Your task to perform on an android device: toggle improve location accuracy Image 0: 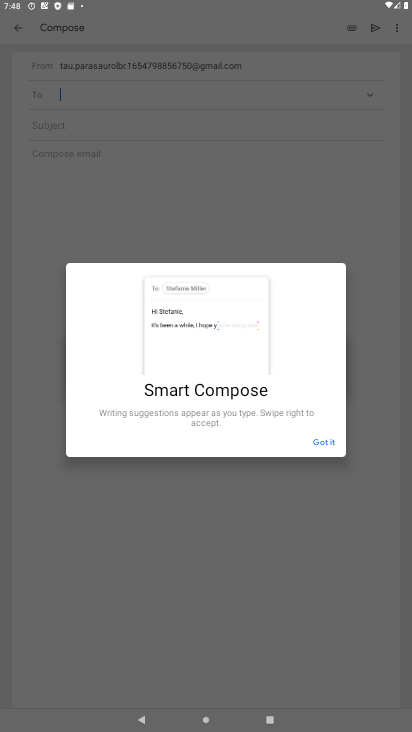
Step 0: press home button
Your task to perform on an android device: toggle improve location accuracy Image 1: 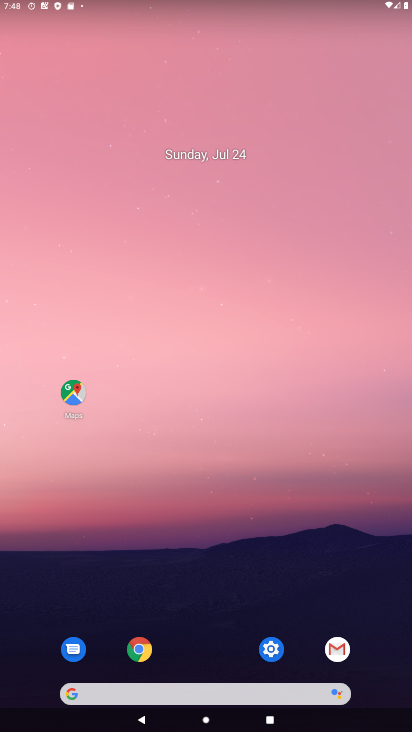
Step 1: click (263, 651)
Your task to perform on an android device: toggle improve location accuracy Image 2: 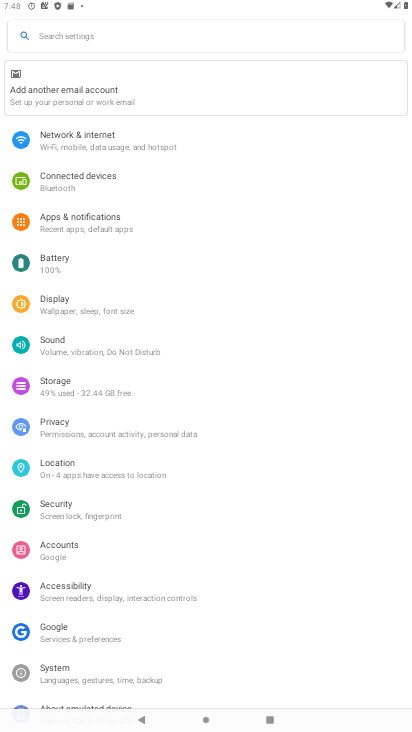
Step 2: click (81, 471)
Your task to perform on an android device: toggle improve location accuracy Image 3: 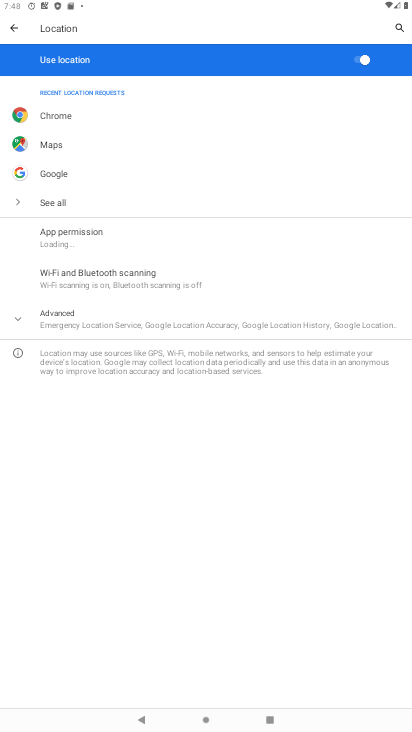
Step 3: click (26, 320)
Your task to perform on an android device: toggle improve location accuracy Image 4: 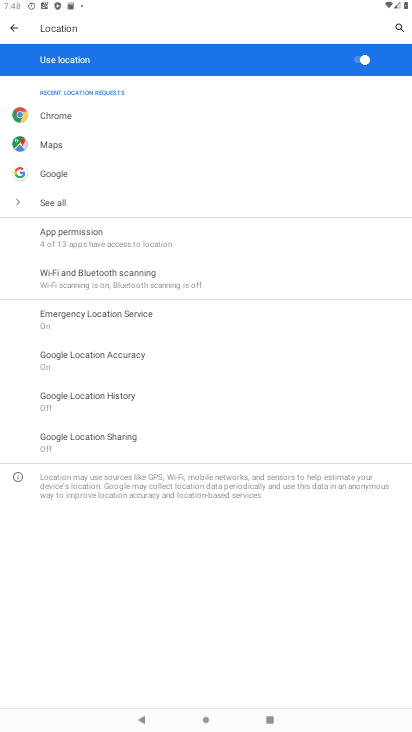
Step 4: click (133, 367)
Your task to perform on an android device: toggle improve location accuracy Image 5: 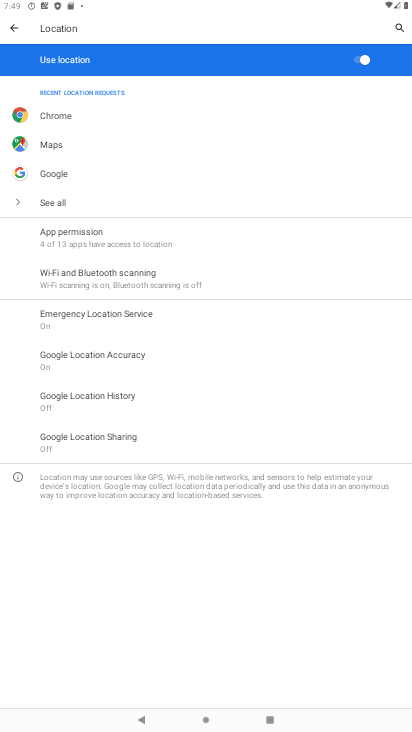
Step 5: task complete